Your task to perform on an android device: open app "Google Pay: Save, Pay, Manage" Image 0: 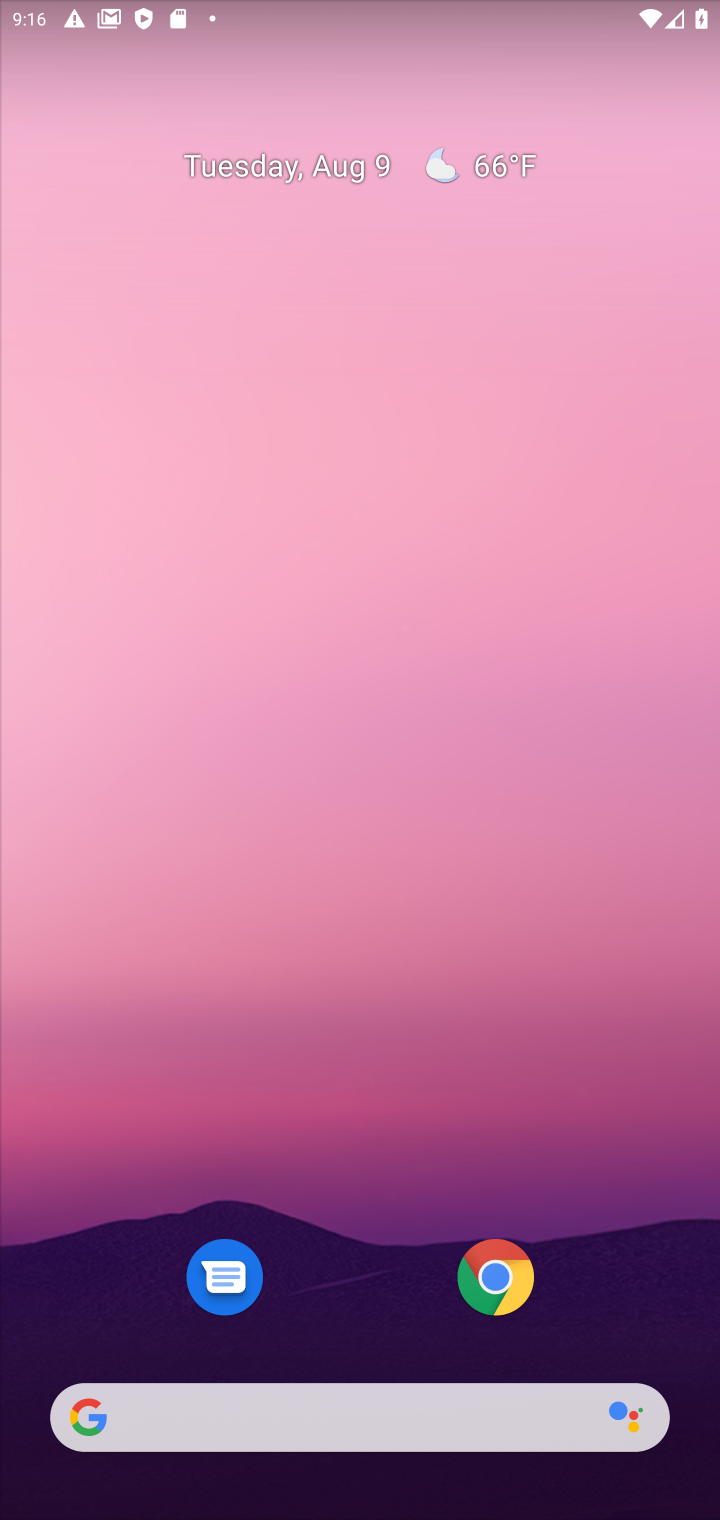
Step 0: drag from (399, 1361) to (253, 223)
Your task to perform on an android device: open app "Google Pay: Save, Pay, Manage" Image 1: 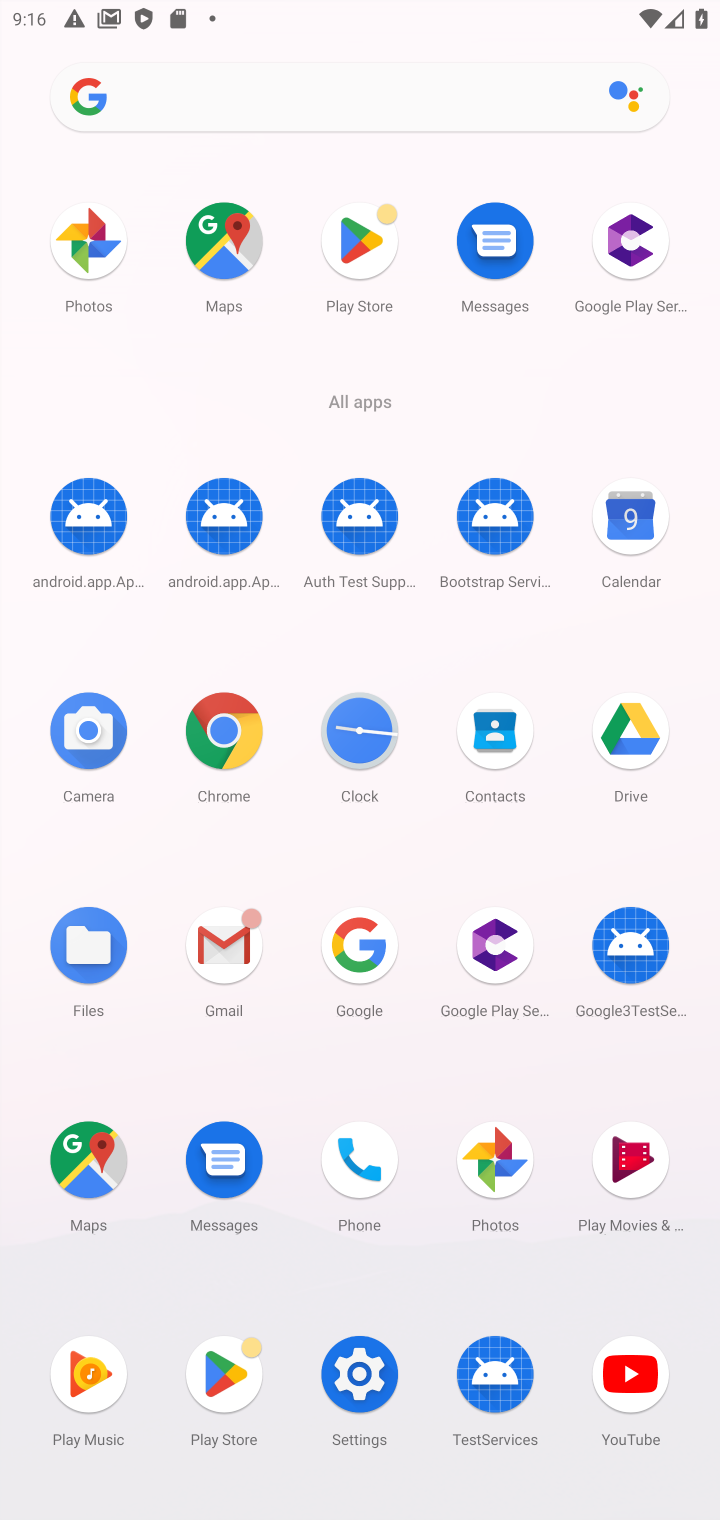
Step 1: click (232, 1362)
Your task to perform on an android device: open app "Google Pay: Save, Pay, Manage" Image 2: 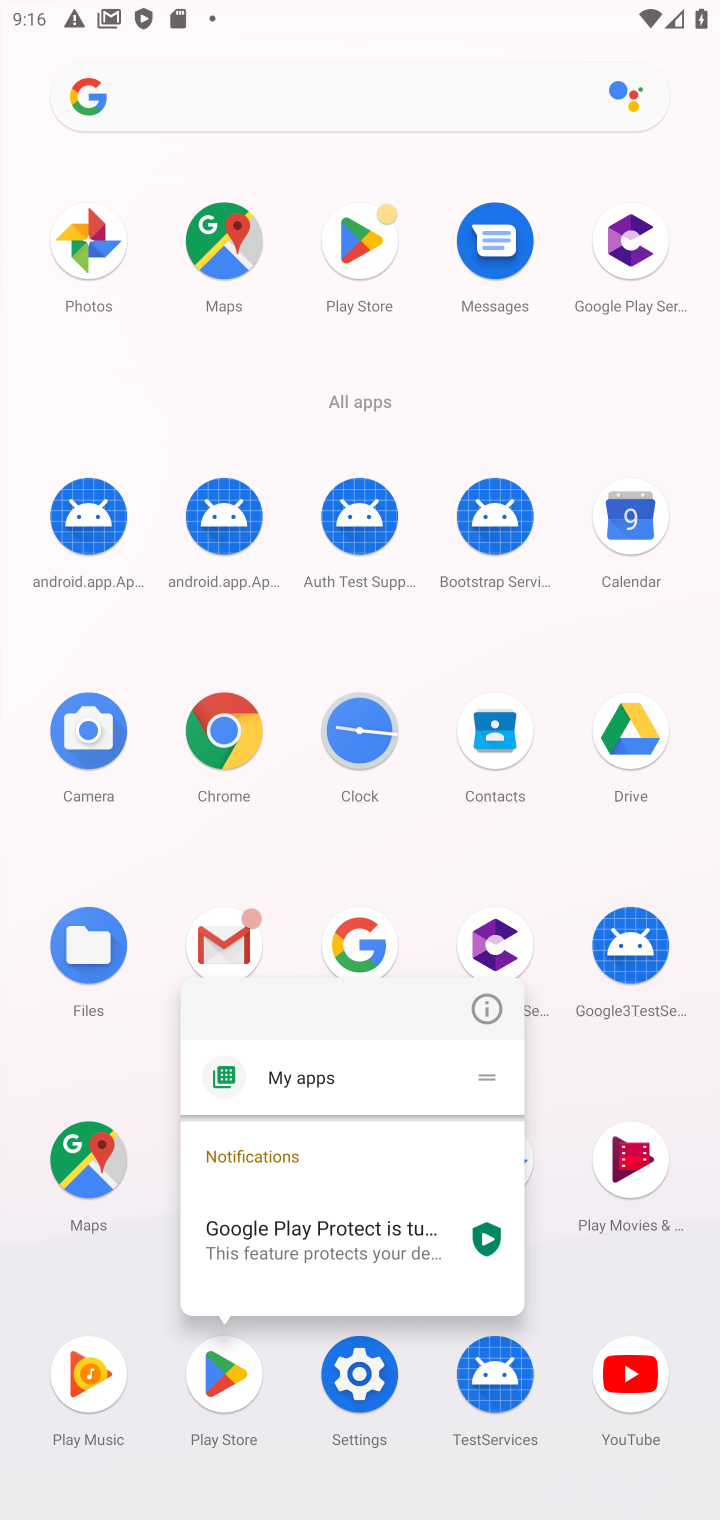
Step 2: click (219, 1388)
Your task to perform on an android device: open app "Google Pay: Save, Pay, Manage" Image 3: 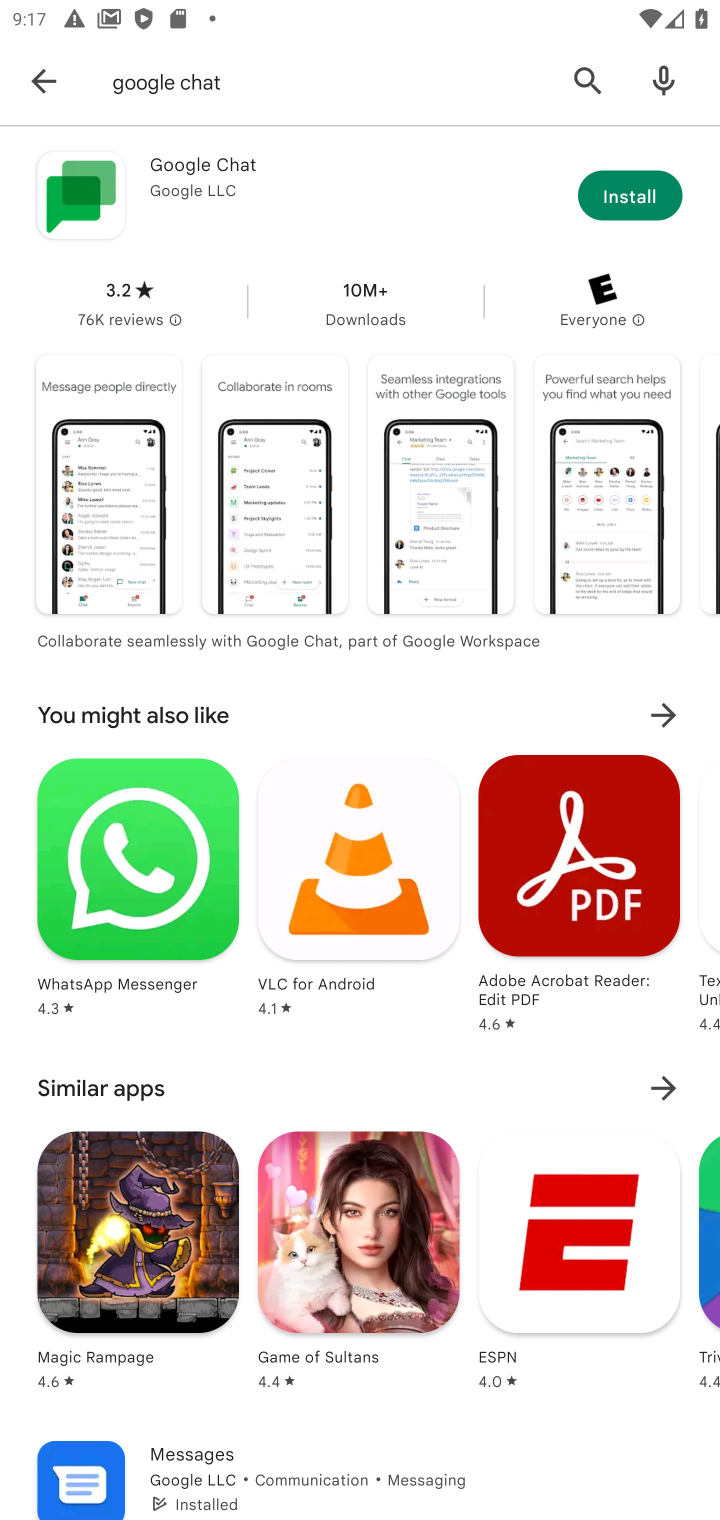
Step 3: click (23, 83)
Your task to perform on an android device: open app "Google Pay: Save, Pay, Manage" Image 4: 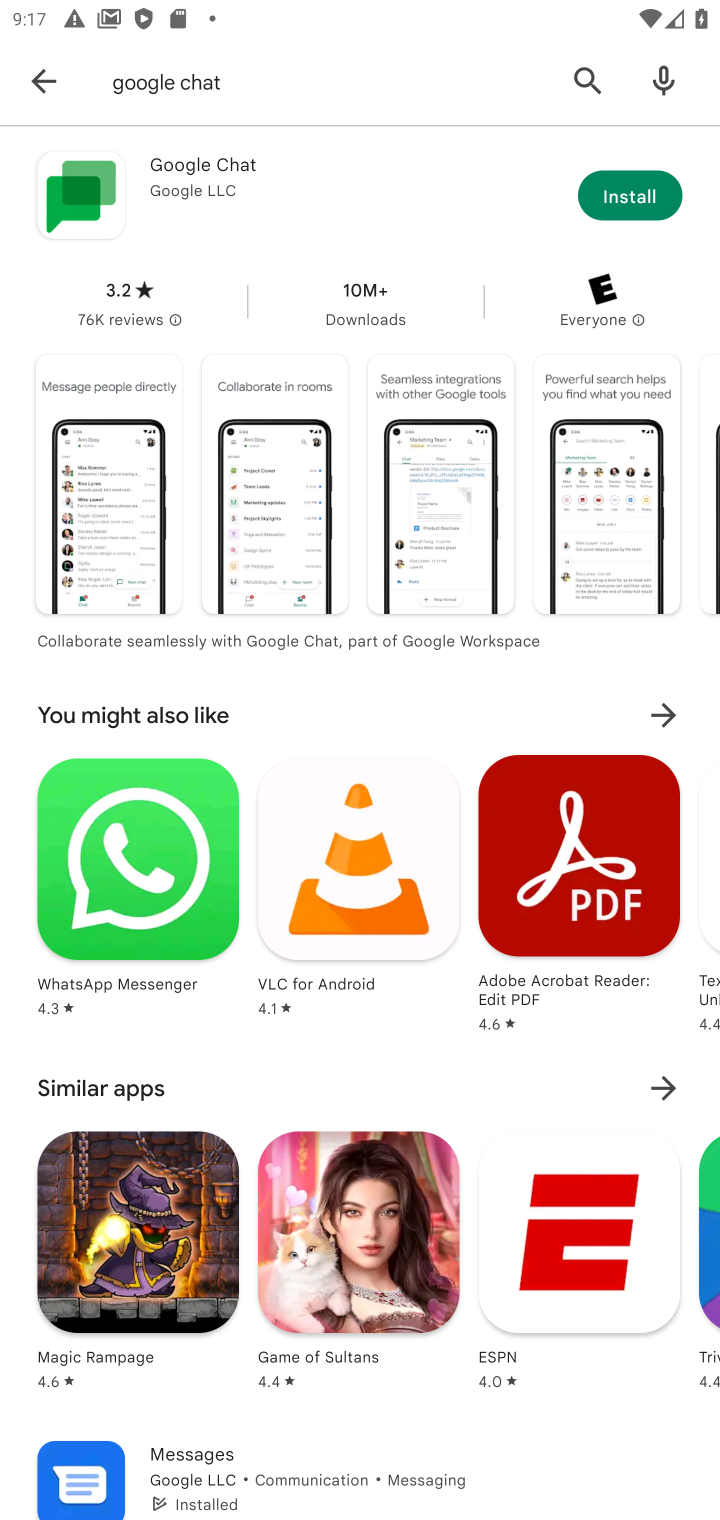
Step 4: click (47, 76)
Your task to perform on an android device: open app "Google Pay: Save, Pay, Manage" Image 5: 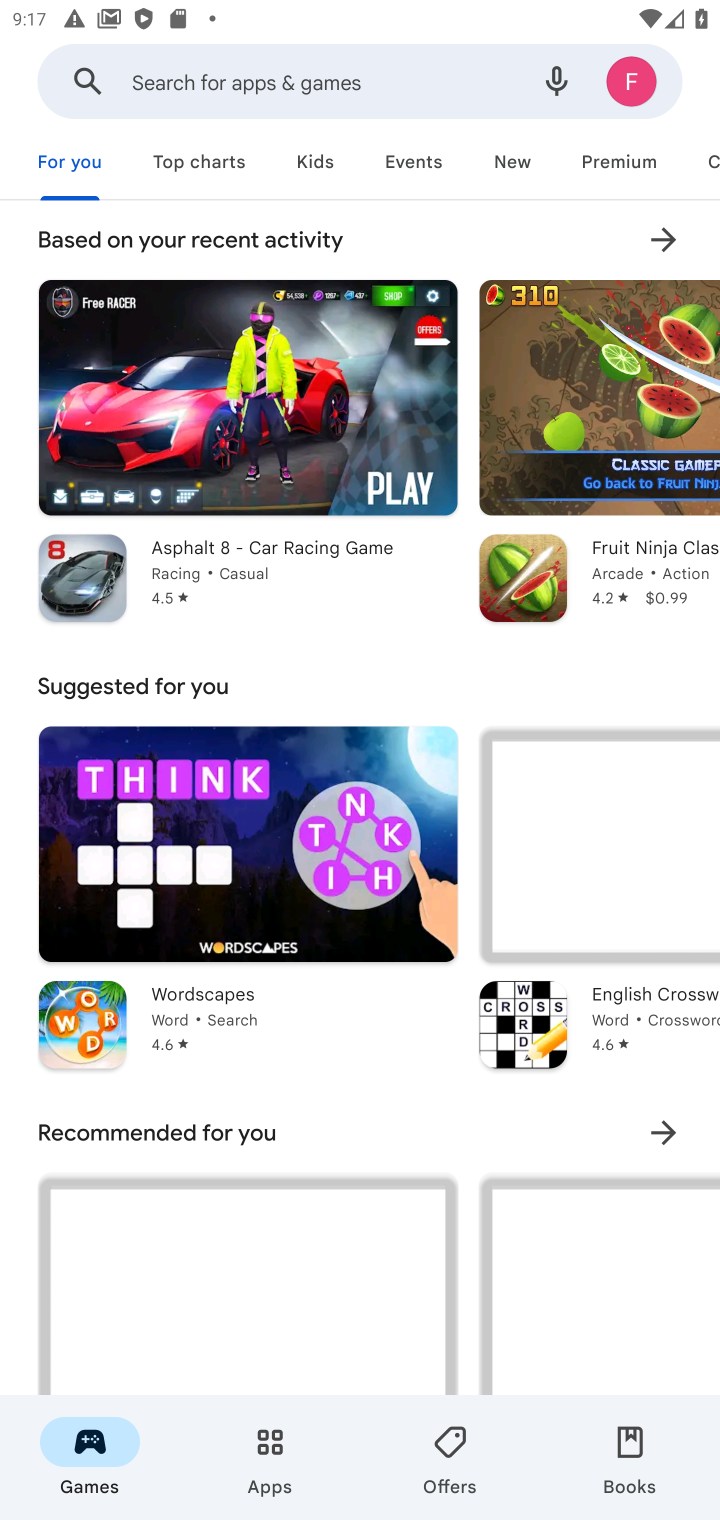
Step 5: click (313, 90)
Your task to perform on an android device: open app "Google Pay: Save, Pay, Manage" Image 6: 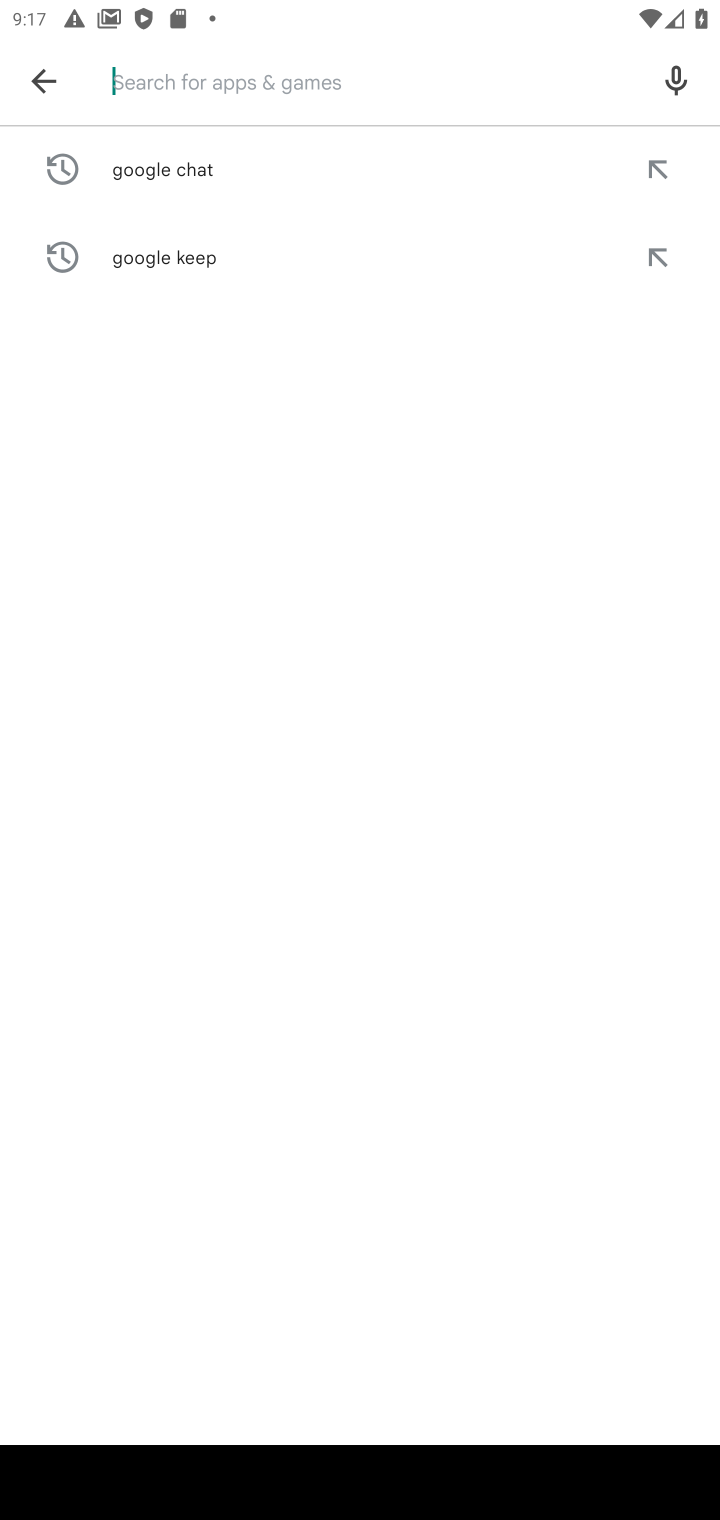
Step 6: type "Google Pay: Save, Pay, Manage"
Your task to perform on an android device: open app "Google Pay: Save, Pay, Manage" Image 7: 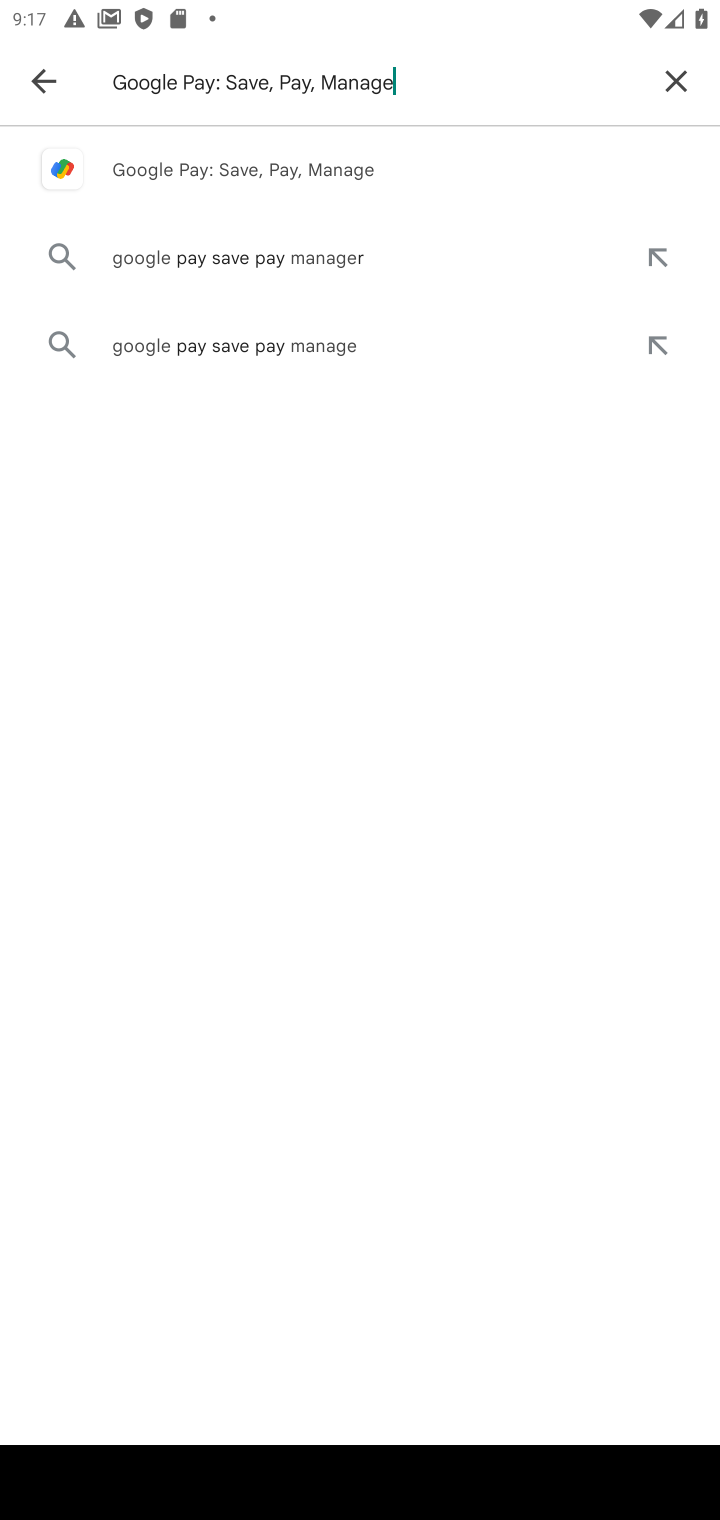
Step 7: click (278, 141)
Your task to perform on an android device: open app "Google Pay: Save, Pay, Manage" Image 8: 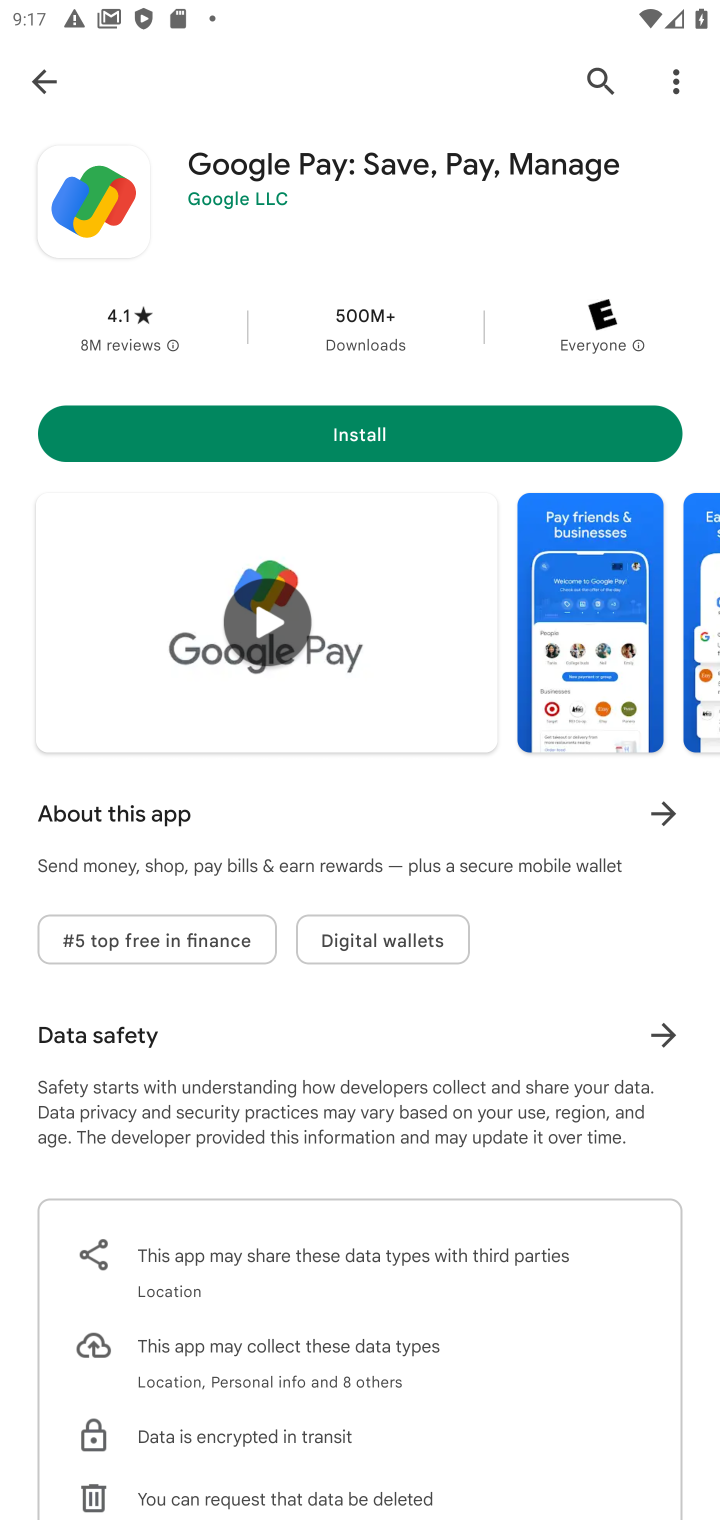
Step 8: task complete